Your task to perform on an android device: Go to Wikipedia Image 0: 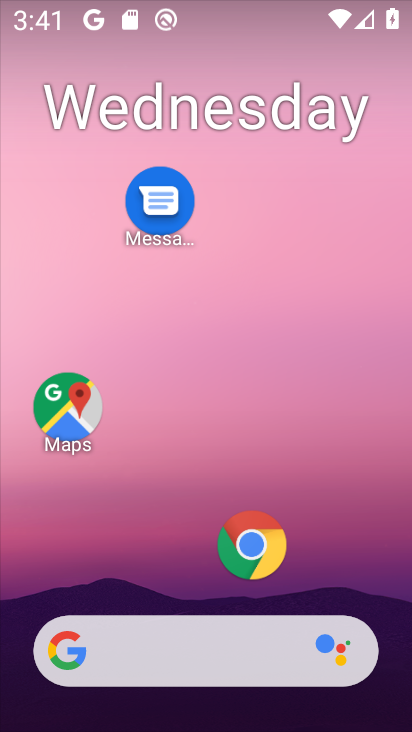
Step 0: click (258, 93)
Your task to perform on an android device: Go to Wikipedia Image 1: 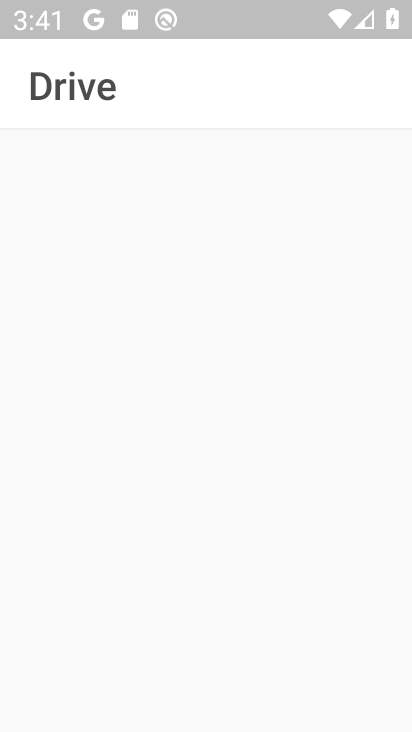
Step 1: press home button
Your task to perform on an android device: Go to Wikipedia Image 2: 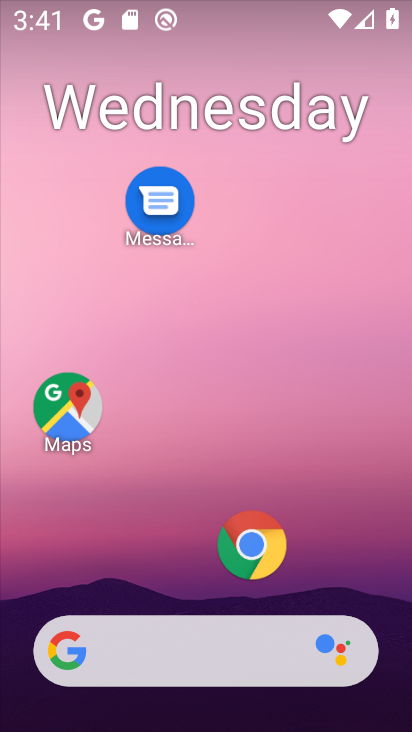
Step 2: click (267, 548)
Your task to perform on an android device: Go to Wikipedia Image 3: 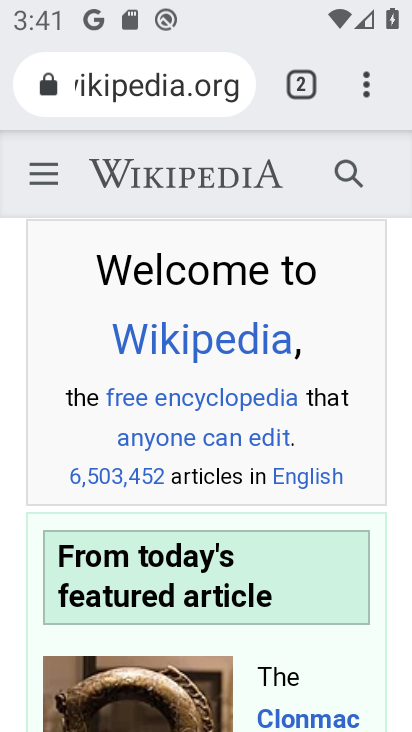
Step 3: task complete